Your task to perform on an android device: What's the weather? Image 0: 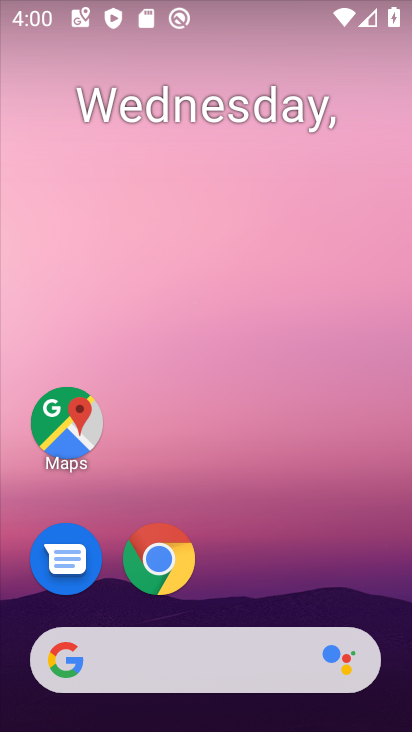
Step 0: click (132, 646)
Your task to perform on an android device: What's the weather? Image 1: 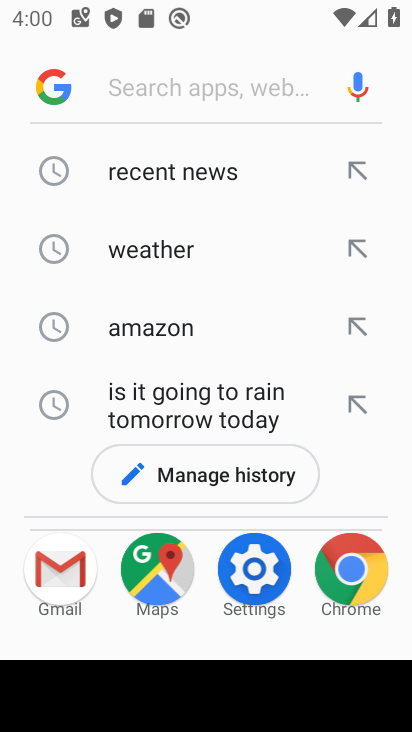
Step 1: click (166, 250)
Your task to perform on an android device: What's the weather? Image 2: 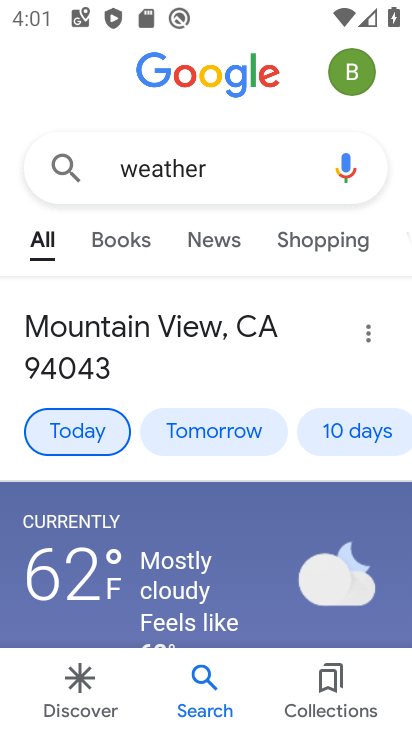
Step 2: task complete